Your task to perform on an android device: Open Chrome and go to the settings page Image 0: 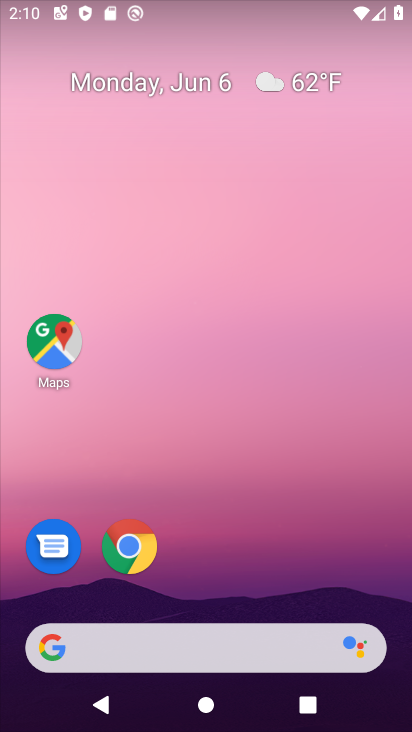
Step 0: click (133, 560)
Your task to perform on an android device: Open Chrome and go to the settings page Image 1: 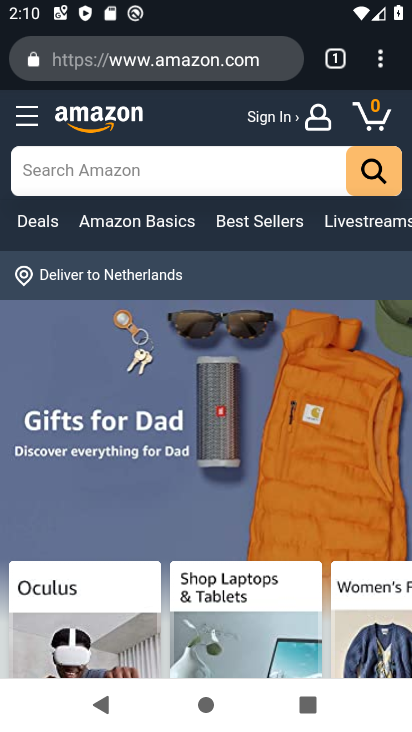
Step 1: task complete